Your task to perform on an android device: Open accessibility settings Image 0: 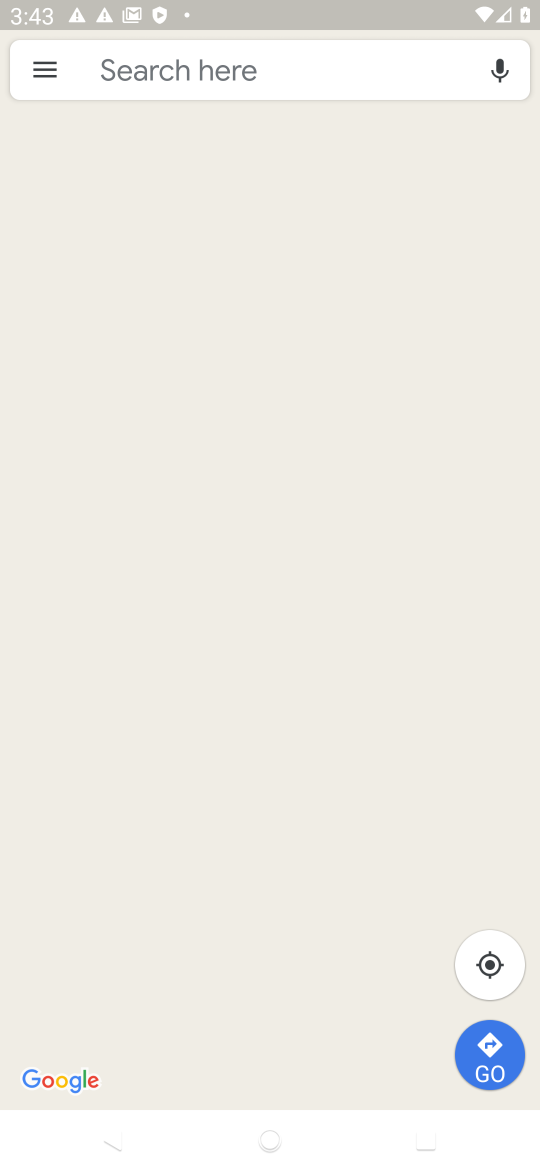
Step 0: press home button
Your task to perform on an android device: Open accessibility settings Image 1: 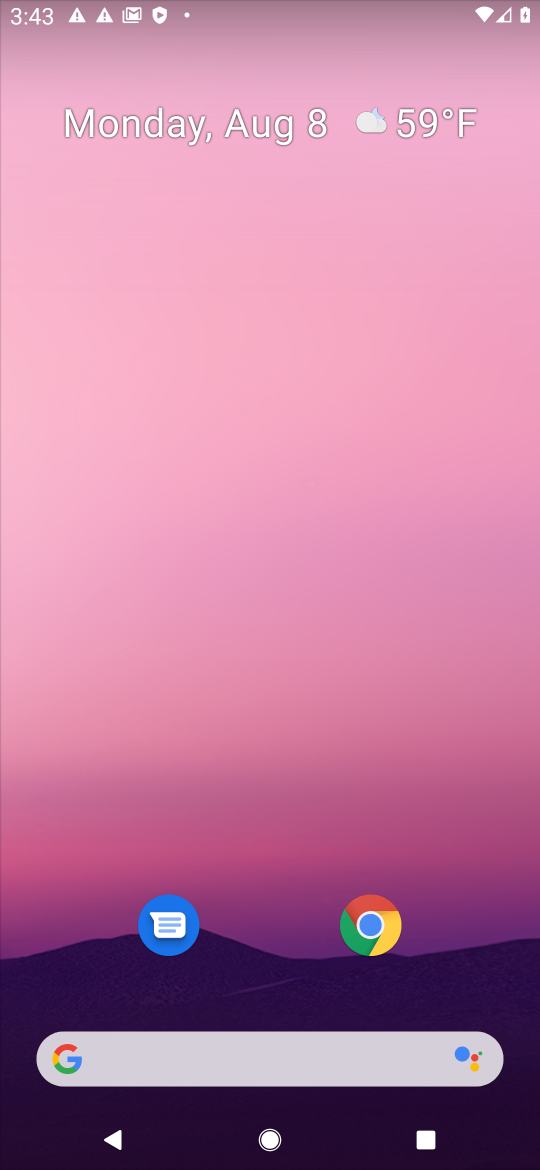
Step 1: drag from (253, 732) to (281, 143)
Your task to perform on an android device: Open accessibility settings Image 2: 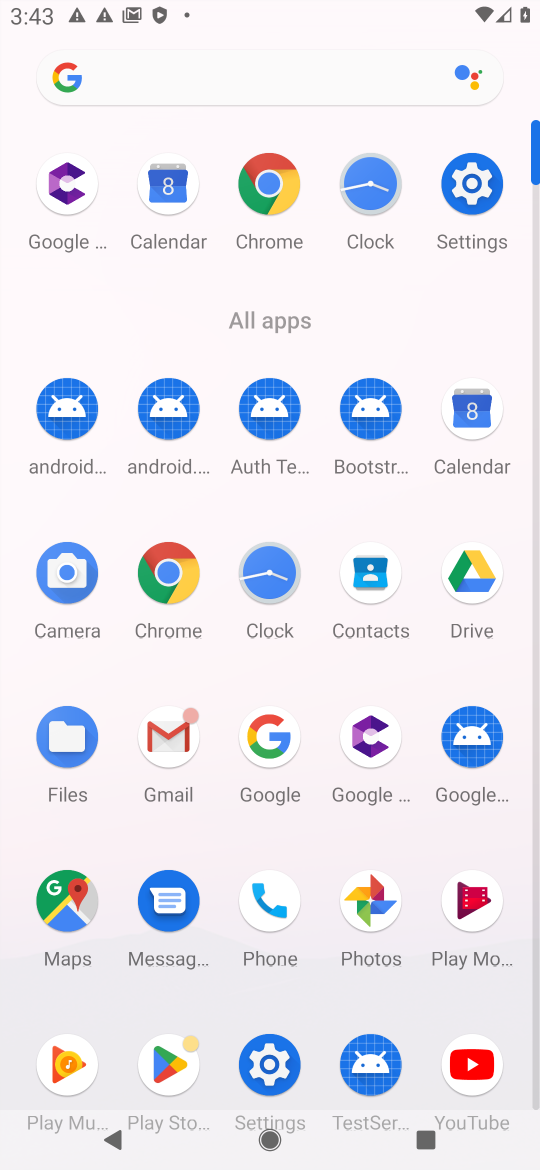
Step 2: click (464, 183)
Your task to perform on an android device: Open accessibility settings Image 3: 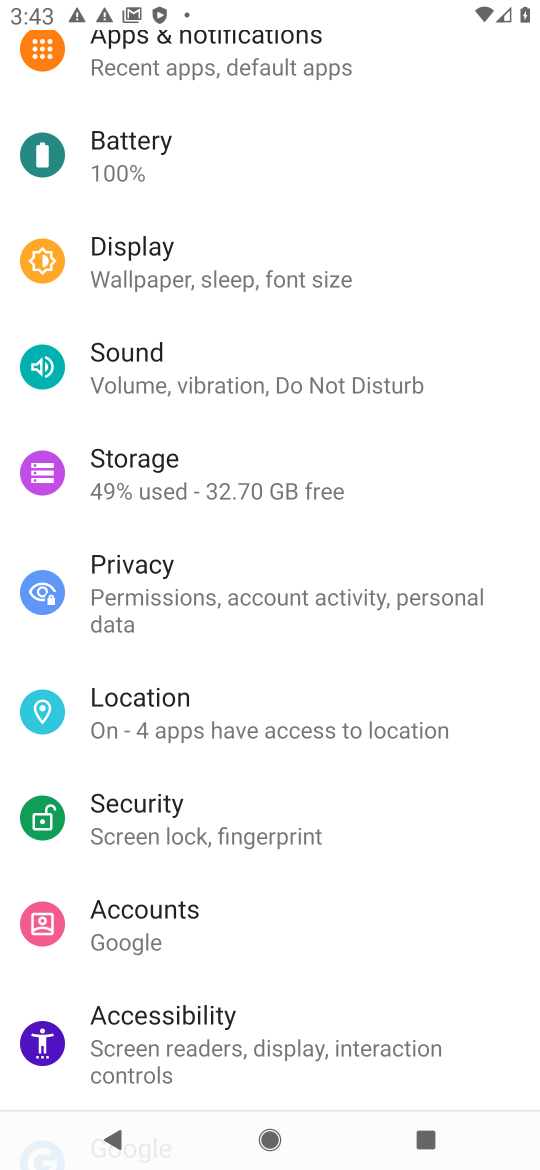
Step 3: click (140, 1028)
Your task to perform on an android device: Open accessibility settings Image 4: 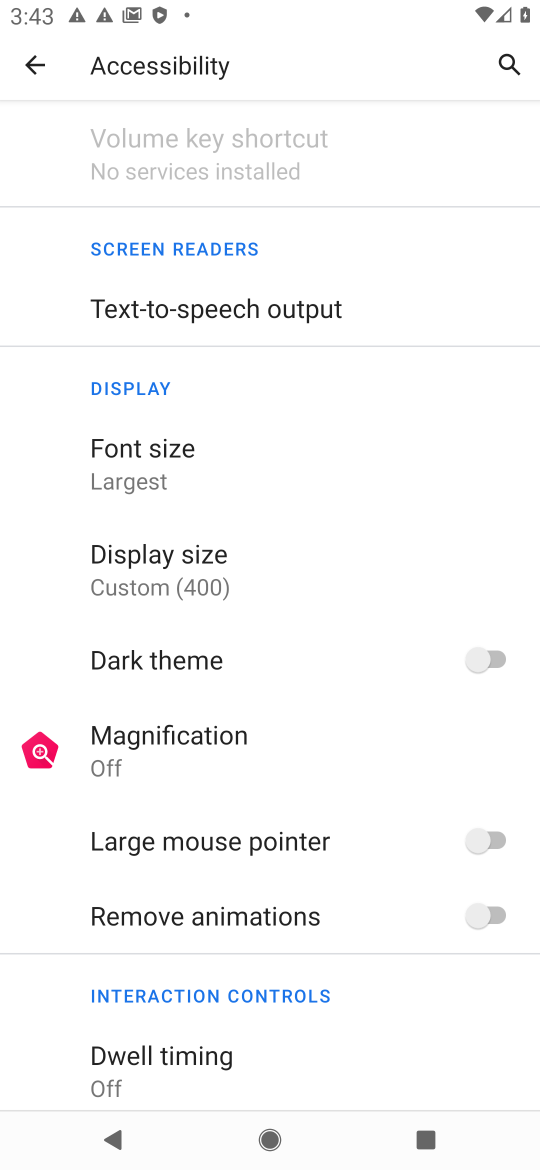
Step 4: task complete